Your task to perform on an android device: change the clock display to digital Image 0: 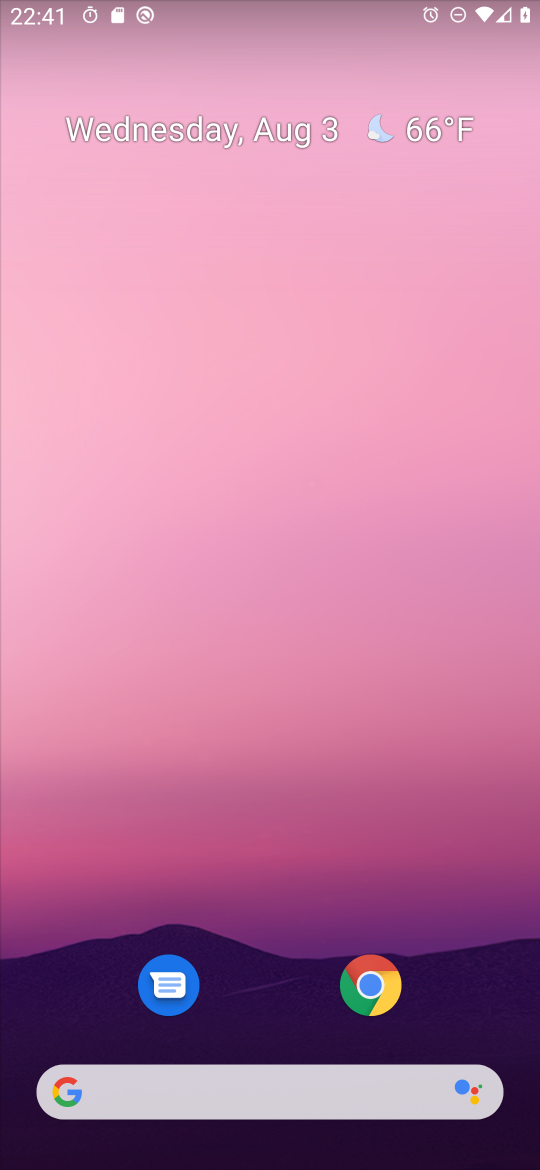
Step 0: drag from (236, 998) to (240, 351)
Your task to perform on an android device: change the clock display to digital Image 1: 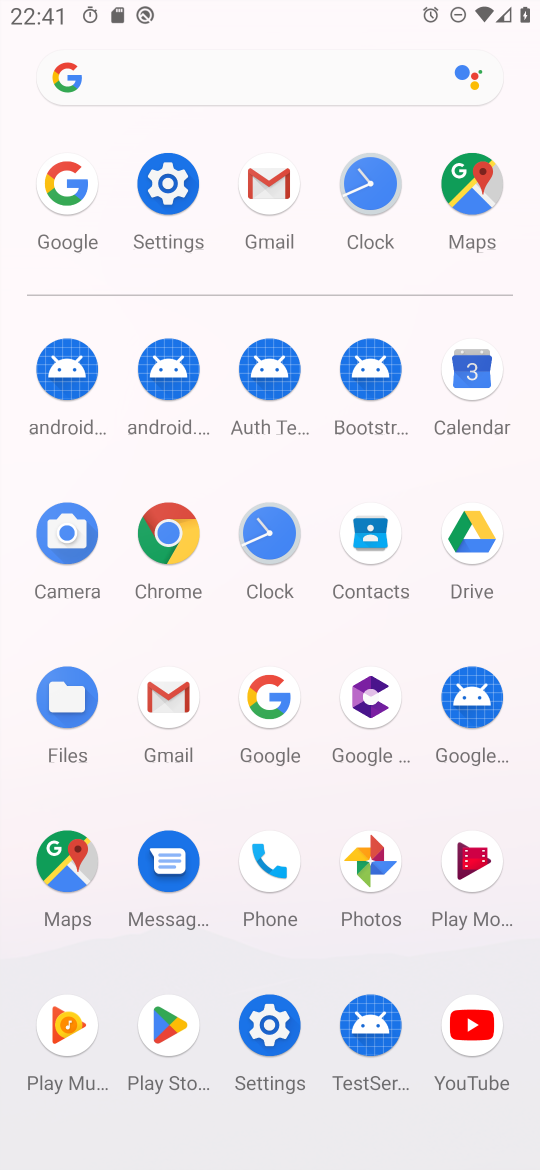
Step 1: click (383, 188)
Your task to perform on an android device: change the clock display to digital Image 2: 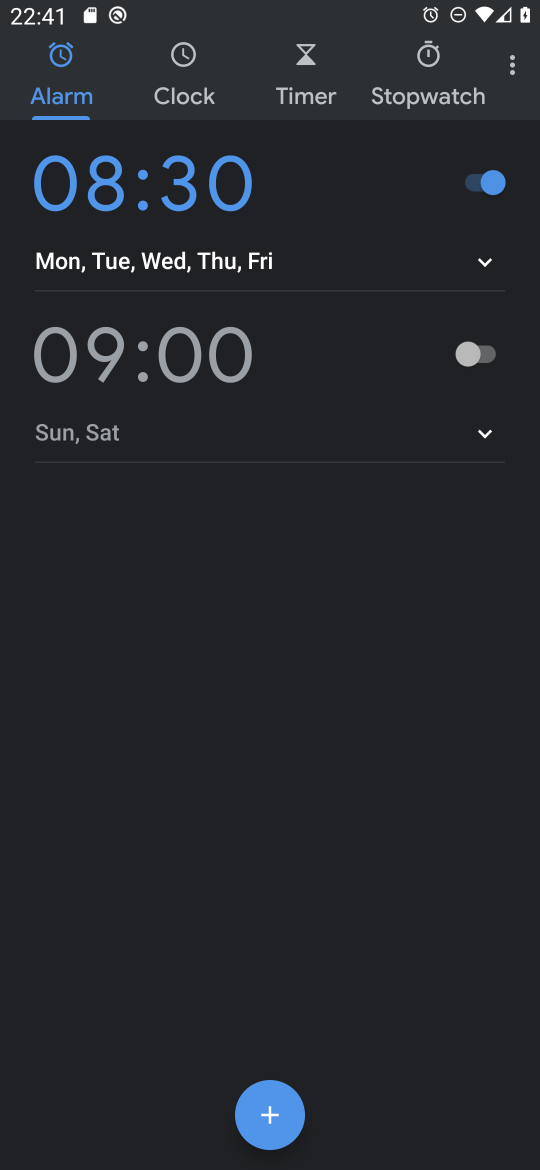
Step 2: click (518, 64)
Your task to perform on an android device: change the clock display to digital Image 3: 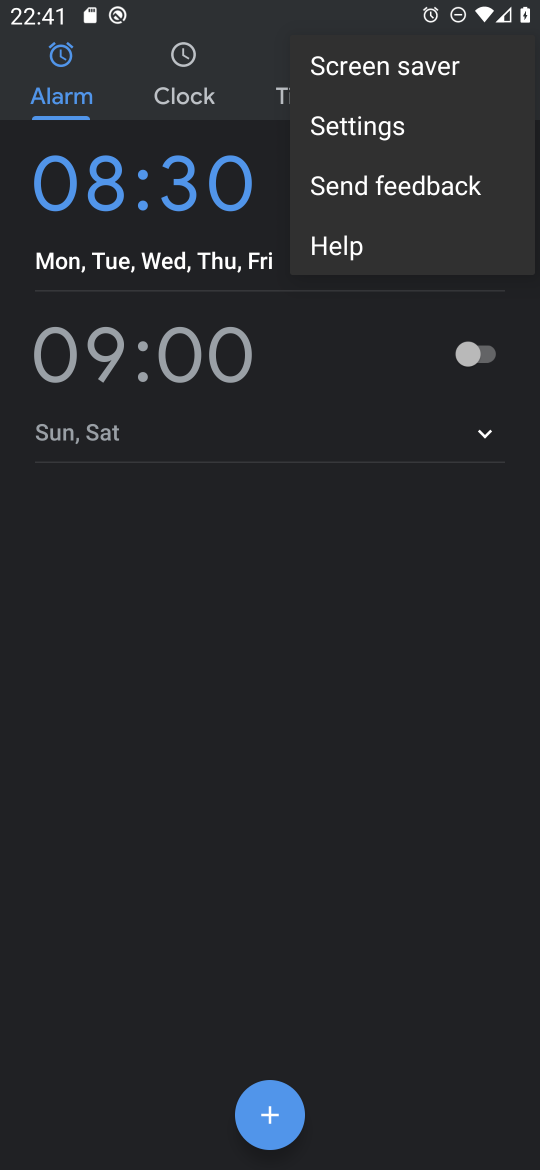
Step 3: click (440, 126)
Your task to perform on an android device: change the clock display to digital Image 4: 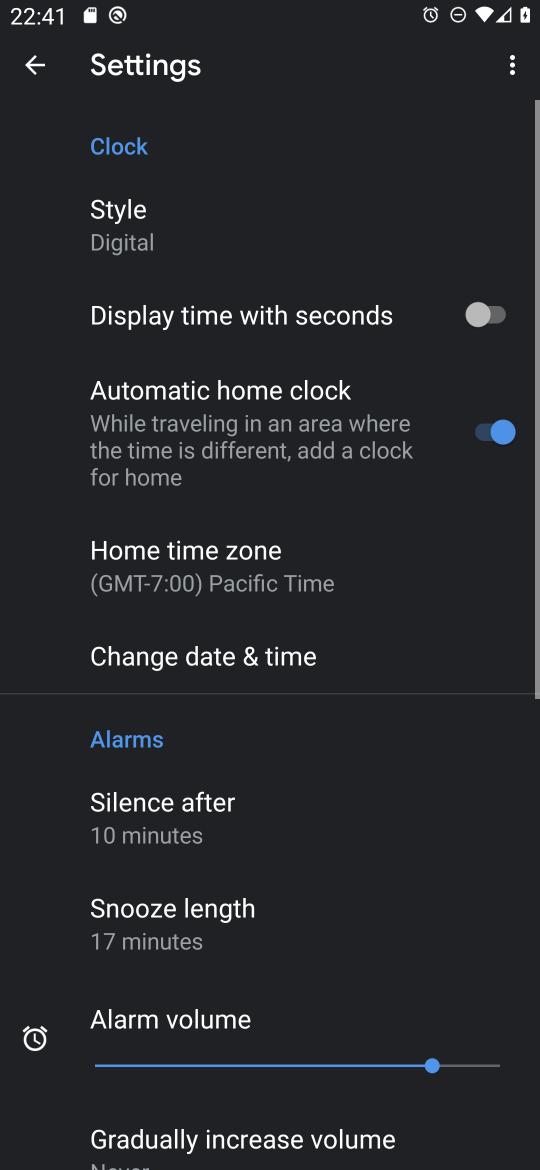
Step 4: click (220, 234)
Your task to perform on an android device: change the clock display to digital Image 5: 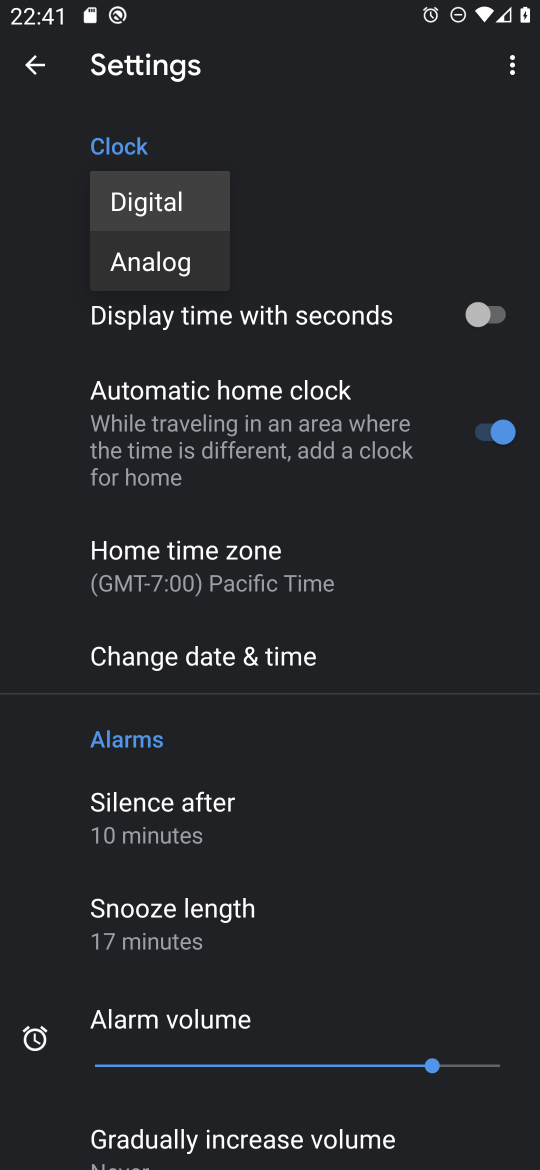
Step 5: task complete